Your task to perform on an android device: turn off priority inbox in the gmail app Image 0: 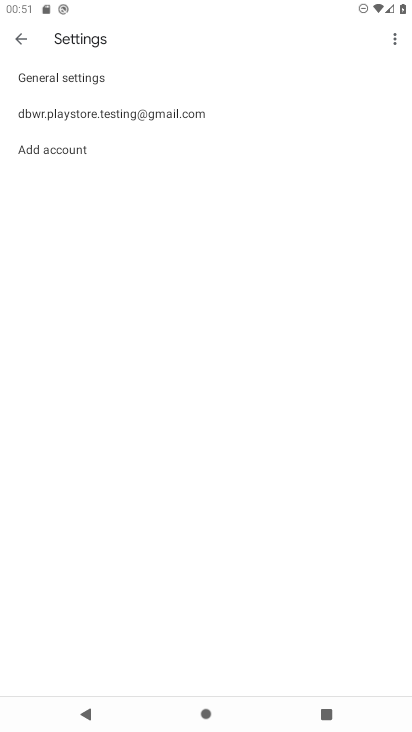
Step 0: click (70, 111)
Your task to perform on an android device: turn off priority inbox in the gmail app Image 1: 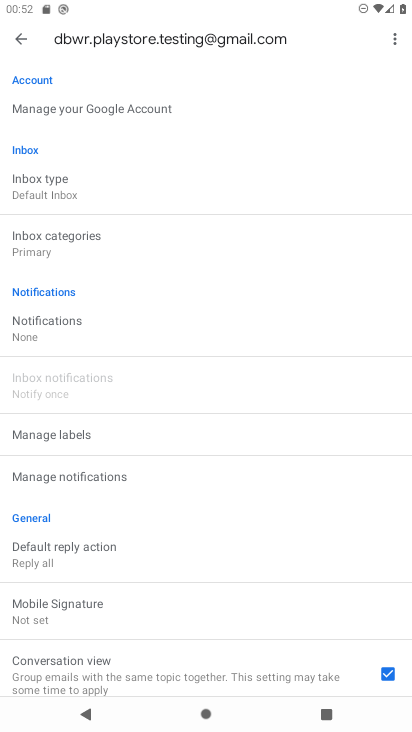
Step 1: click (78, 190)
Your task to perform on an android device: turn off priority inbox in the gmail app Image 2: 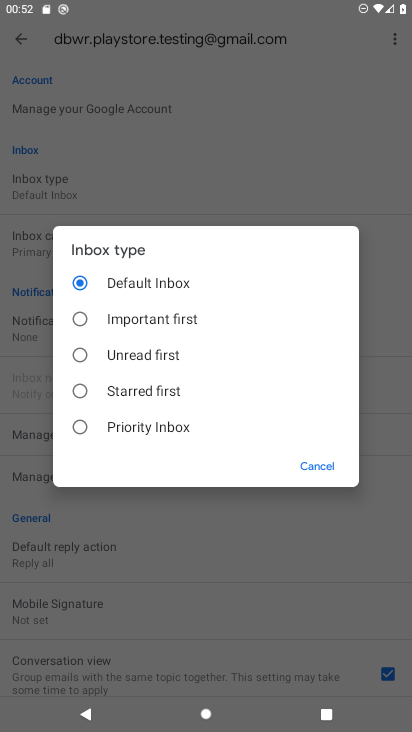
Step 2: click (109, 429)
Your task to perform on an android device: turn off priority inbox in the gmail app Image 3: 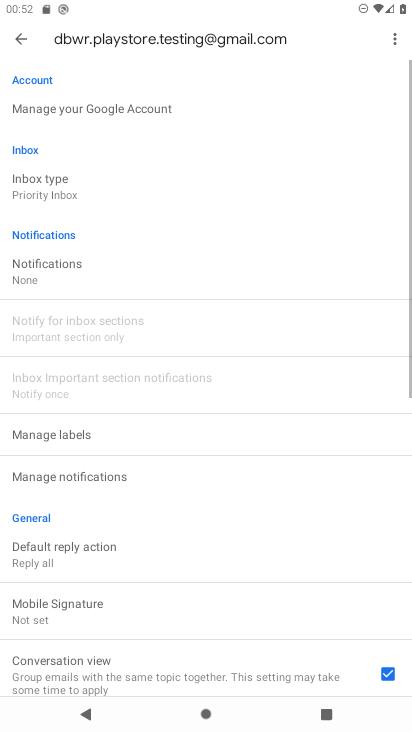
Step 3: task complete